Your task to perform on an android device: turn off location history Image 0: 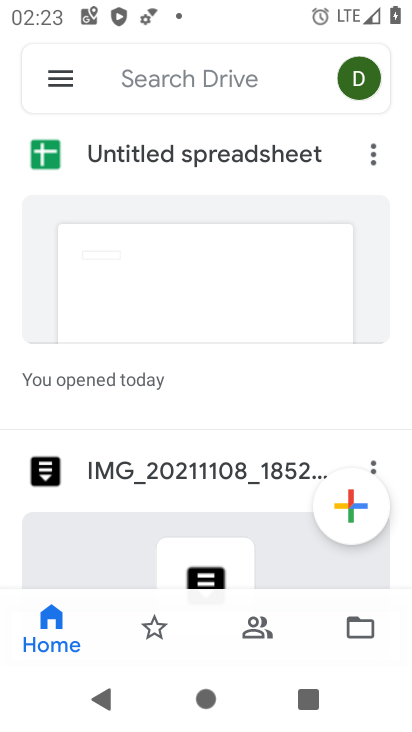
Step 0: press home button
Your task to perform on an android device: turn off location history Image 1: 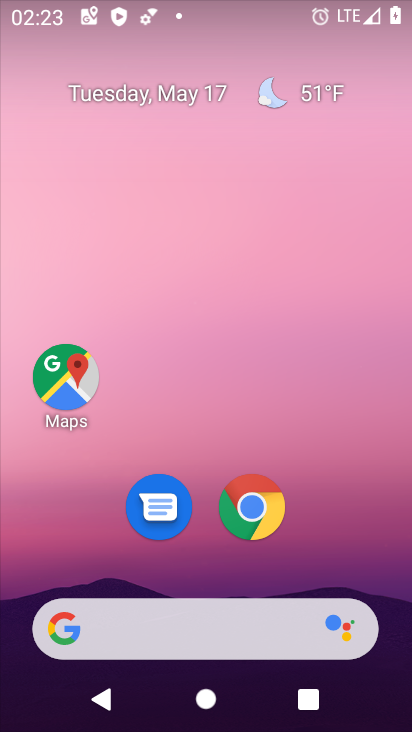
Step 1: drag from (222, 570) to (237, 147)
Your task to perform on an android device: turn off location history Image 2: 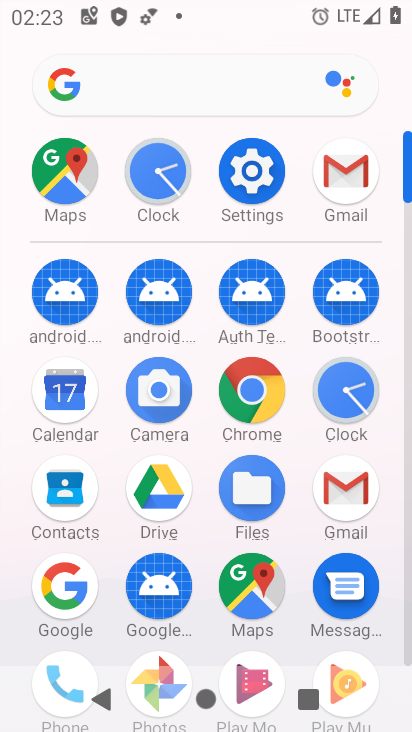
Step 2: click (240, 177)
Your task to perform on an android device: turn off location history Image 3: 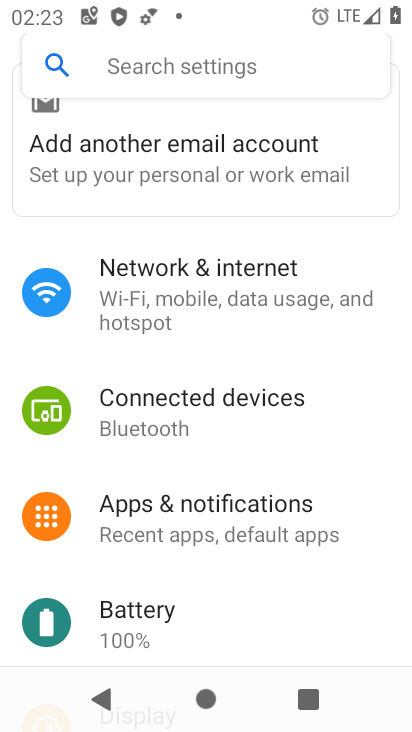
Step 3: drag from (210, 593) to (237, 292)
Your task to perform on an android device: turn off location history Image 4: 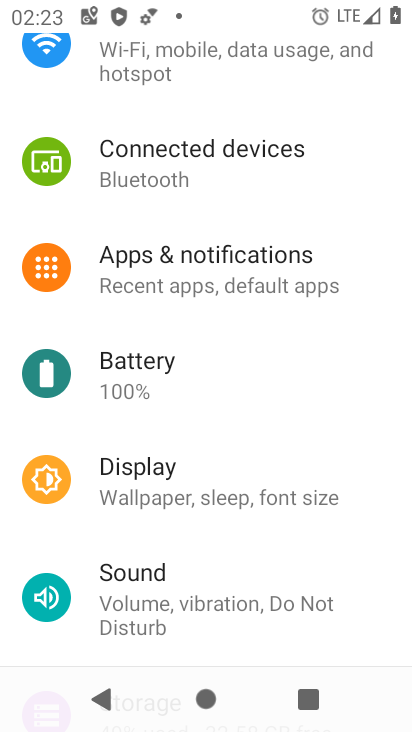
Step 4: drag from (228, 574) to (217, 297)
Your task to perform on an android device: turn off location history Image 5: 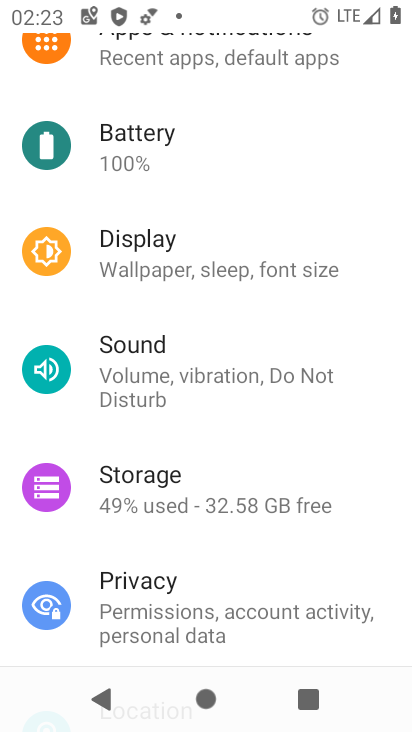
Step 5: drag from (155, 632) to (193, 416)
Your task to perform on an android device: turn off location history Image 6: 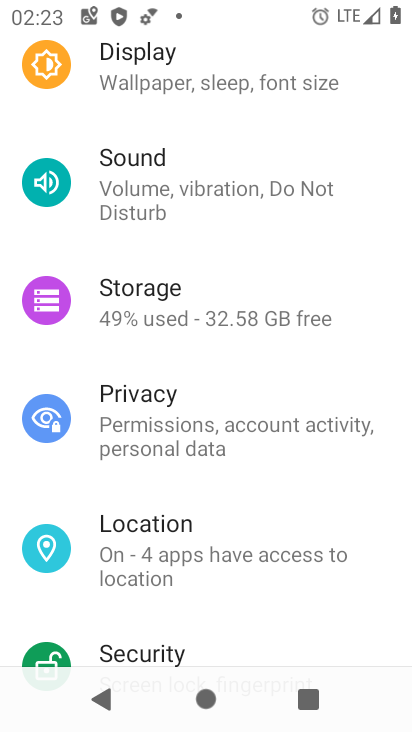
Step 6: click (171, 555)
Your task to perform on an android device: turn off location history Image 7: 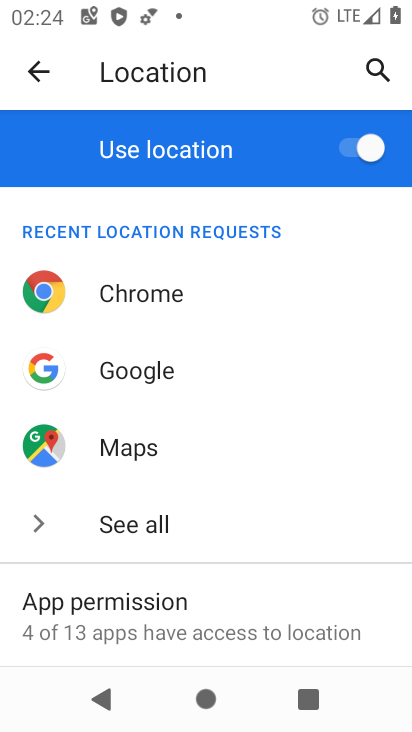
Step 7: drag from (153, 620) to (206, 427)
Your task to perform on an android device: turn off location history Image 8: 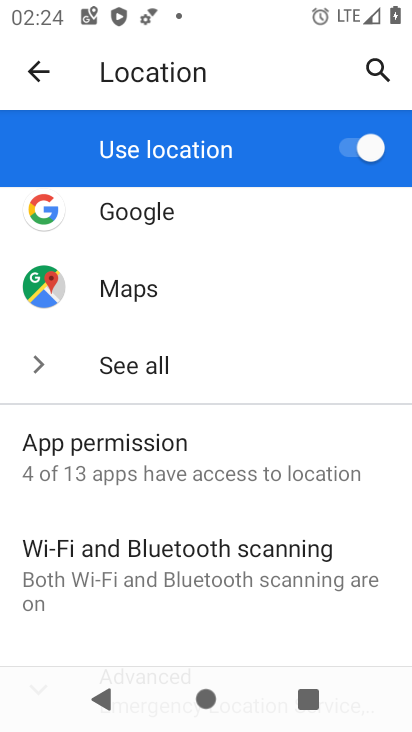
Step 8: drag from (223, 610) to (229, 420)
Your task to perform on an android device: turn off location history Image 9: 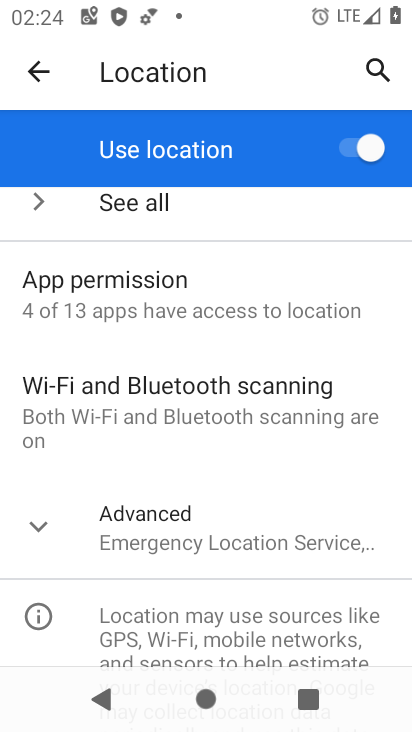
Step 9: click (213, 542)
Your task to perform on an android device: turn off location history Image 10: 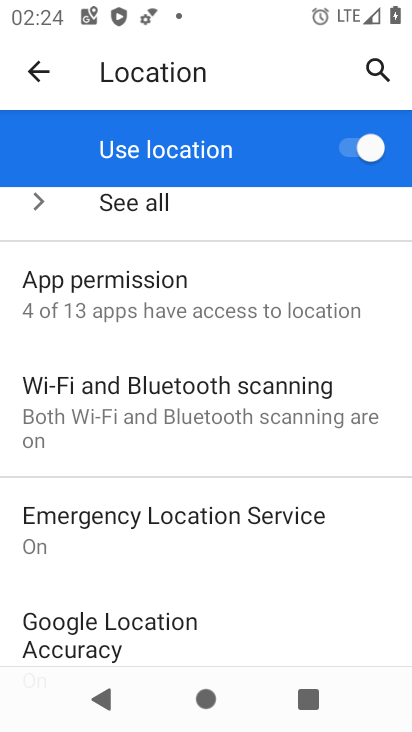
Step 10: drag from (175, 584) to (173, 430)
Your task to perform on an android device: turn off location history Image 11: 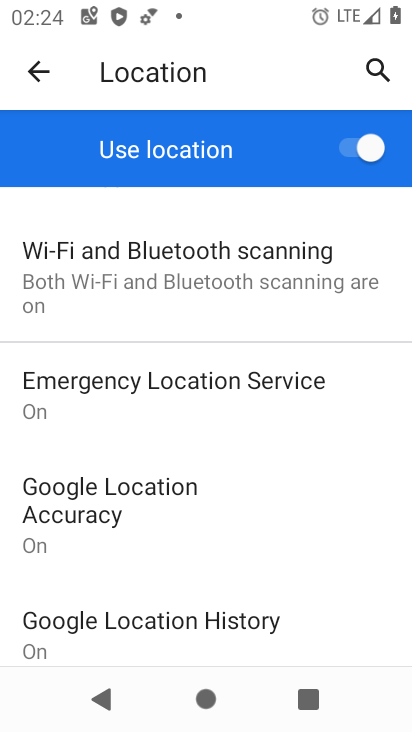
Step 11: click (145, 621)
Your task to perform on an android device: turn off location history Image 12: 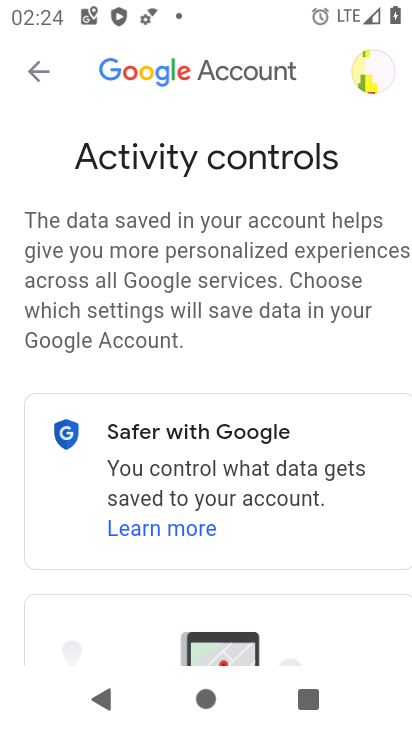
Step 12: drag from (254, 480) to (255, 274)
Your task to perform on an android device: turn off location history Image 13: 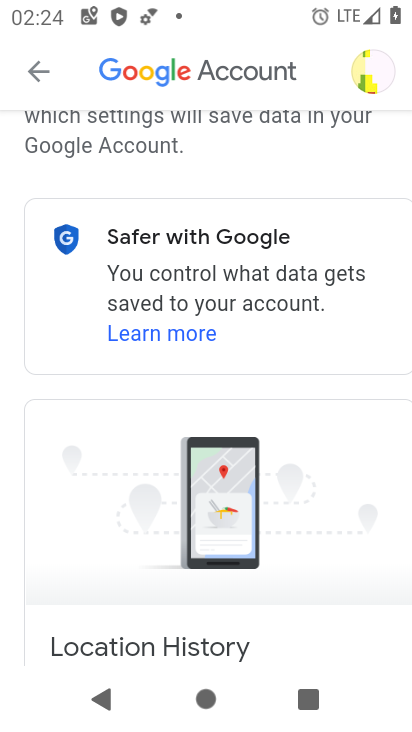
Step 13: drag from (224, 576) to (241, 260)
Your task to perform on an android device: turn off location history Image 14: 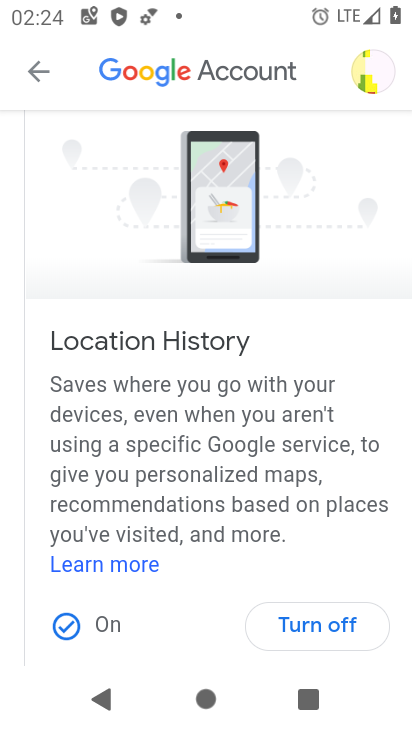
Step 14: click (292, 626)
Your task to perform on an android device: turn off location history Image 15: 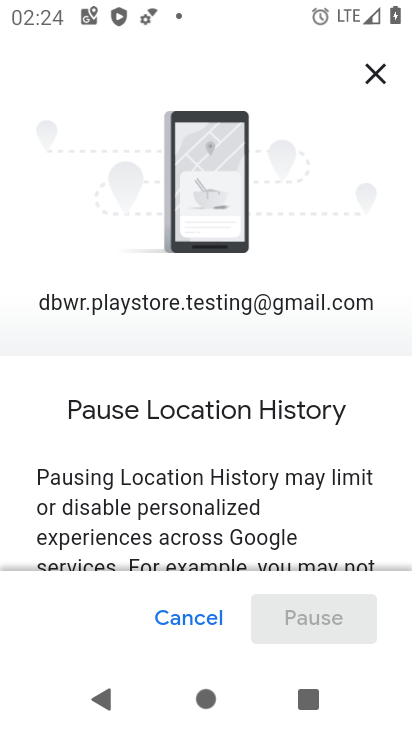
Step 15: drag from (278, 546) to (270, 168)
Your task to perform on an android device: turn off location history Image 16: 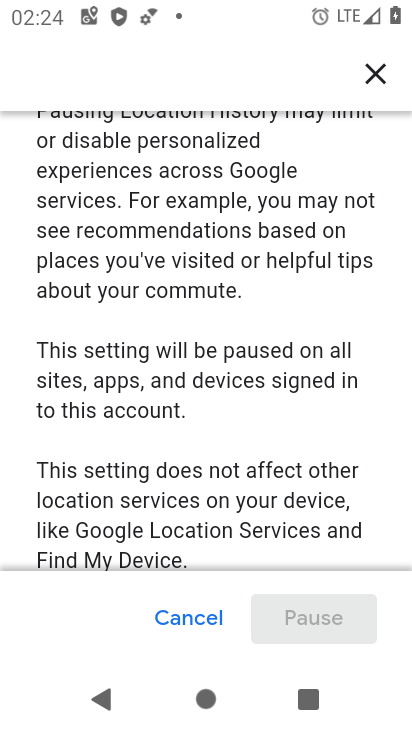
Step 16: drag from (244, 543) to (267, 167)
Your task to perform on an android device: turn off location history Image 17: 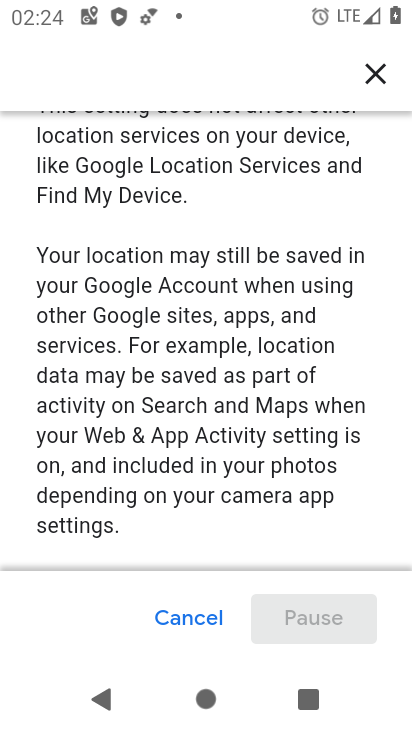
Step 17: drag from (251, 523) to (252, 151)
Your task to perform on an android device: turn off location history Image 18: 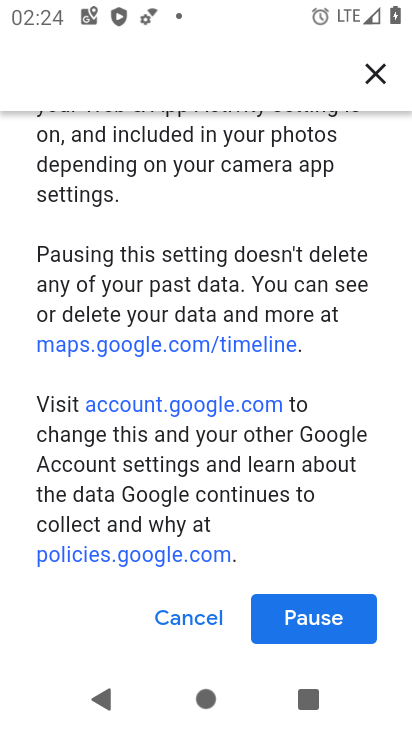
Step 18: click (306, 622)
Your task to perform on an android device: turn off location history Image 19: 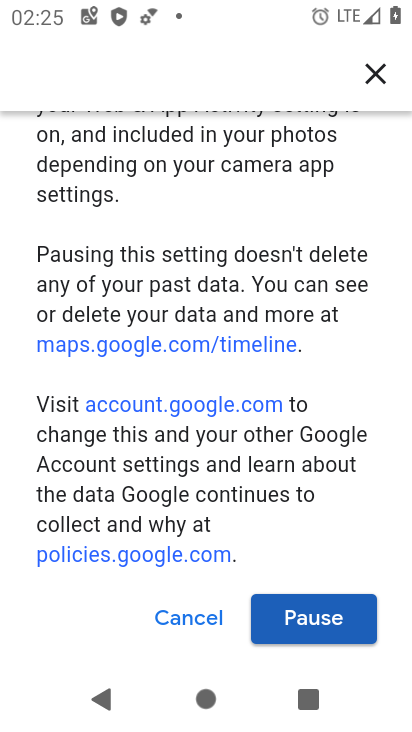
Step 19: click (307, 611)
Your task to perform on an android device: turn off location history Image 20: 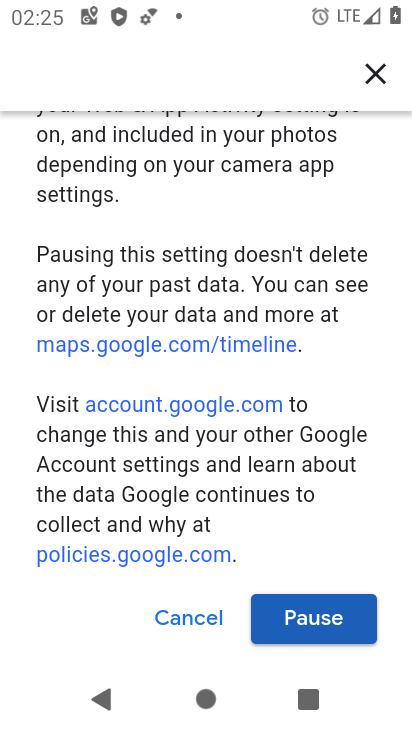
Step 20: click (298, 622)
Your task to perform on an android device: turn off location history Image 21: 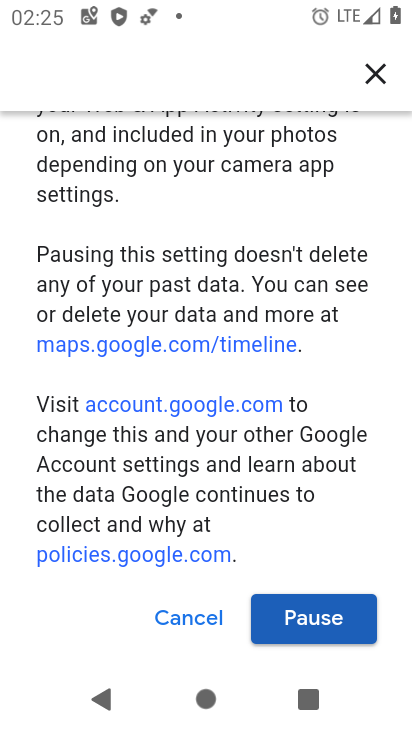
Step 21: click (298, 620)
Your task to perform on an android device: turn off location history Image 22: 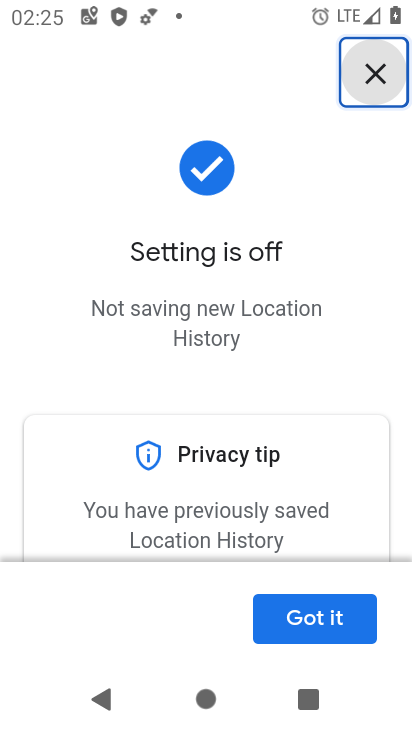
Step 22: task complete